Your task to perform on an android device: Go to display settings Image 0: 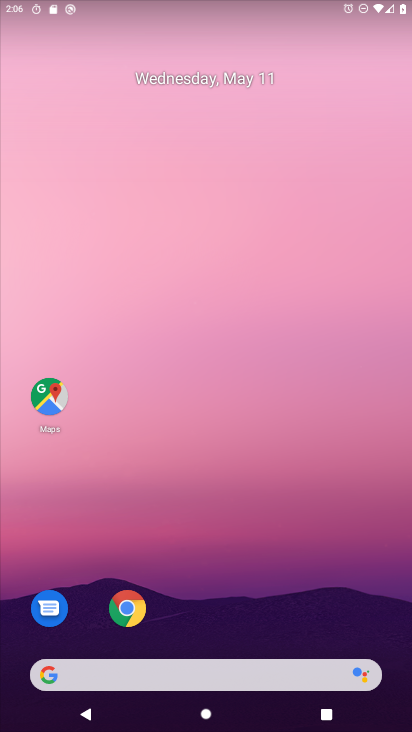
Step 0: drag from (205, 649) to (216, 170)
Your task to perform on an android device: Go to display settings Image 1: 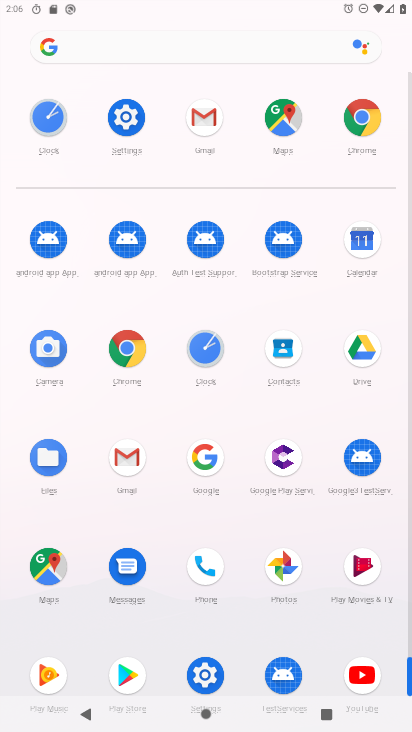
Step 1: click (131, 138)
Your task to perform on an android device: Go to display settings Image 2: 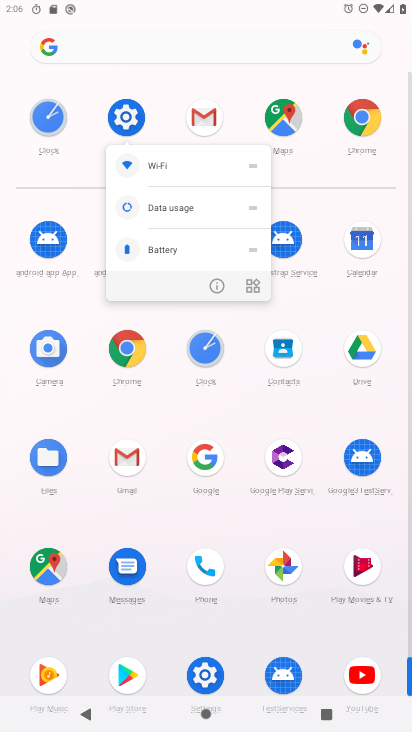
Step 2: click (127, 117)
Your task to perform on an android device: Go to display settings Image 3: 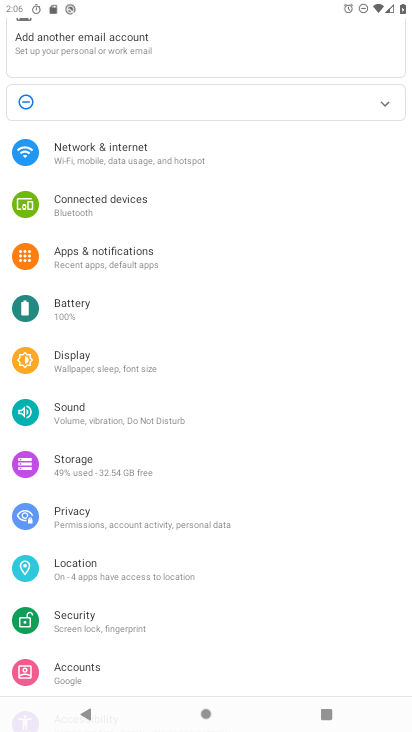
Step 3: click (131, 369)
Your task to perform on an android device: Go to display settings Image 4: 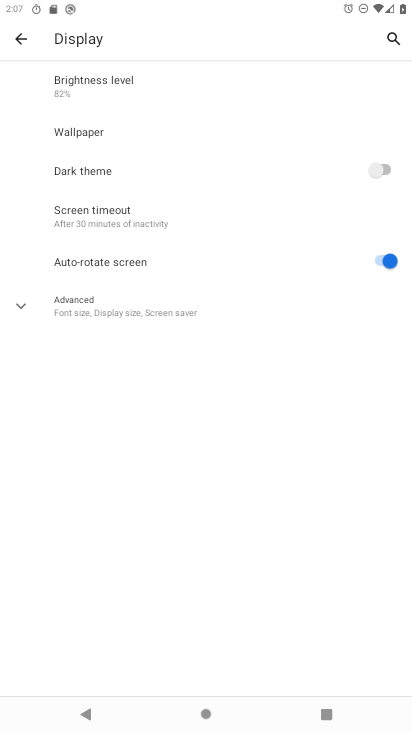
Step 4: click (155, 305)
Your task to perform on an android device: Go to display settings Image 5: 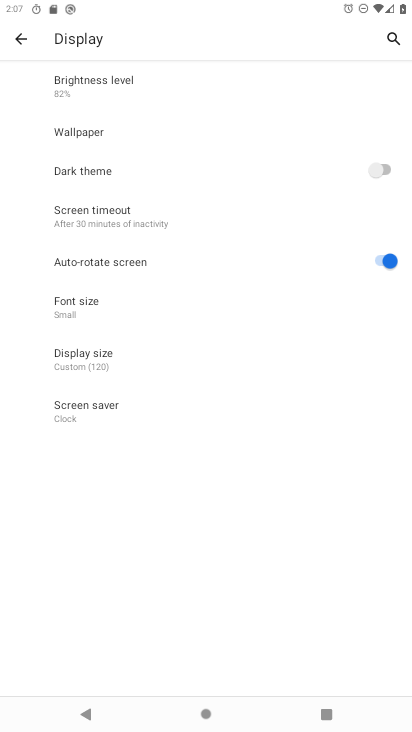
Step 5: task complete